Your task to perform on an android device: change notifications settings Image 0: 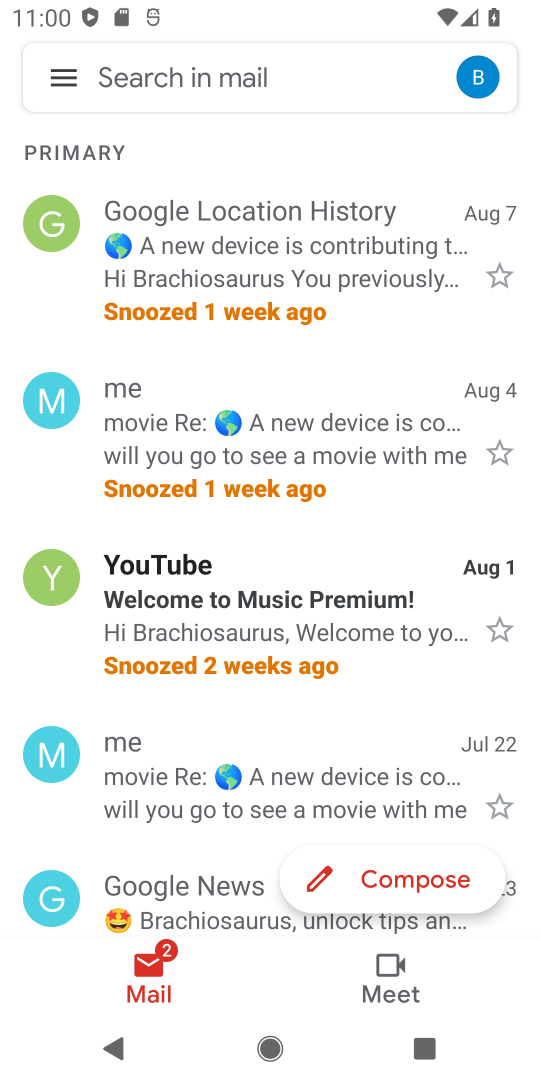
Step 0: click (65, 78)
Your task to perform on an android device: change notifications settings Image 1: 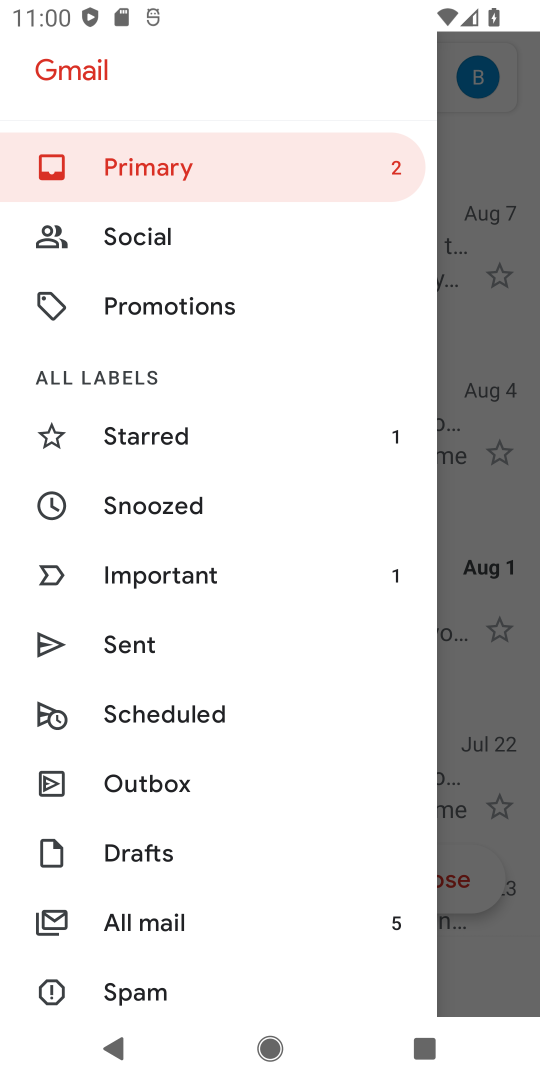
Step 1: drag from (246, 954) to (173, 217)
Your task to perform on an android device: change notifications settings Image 2: 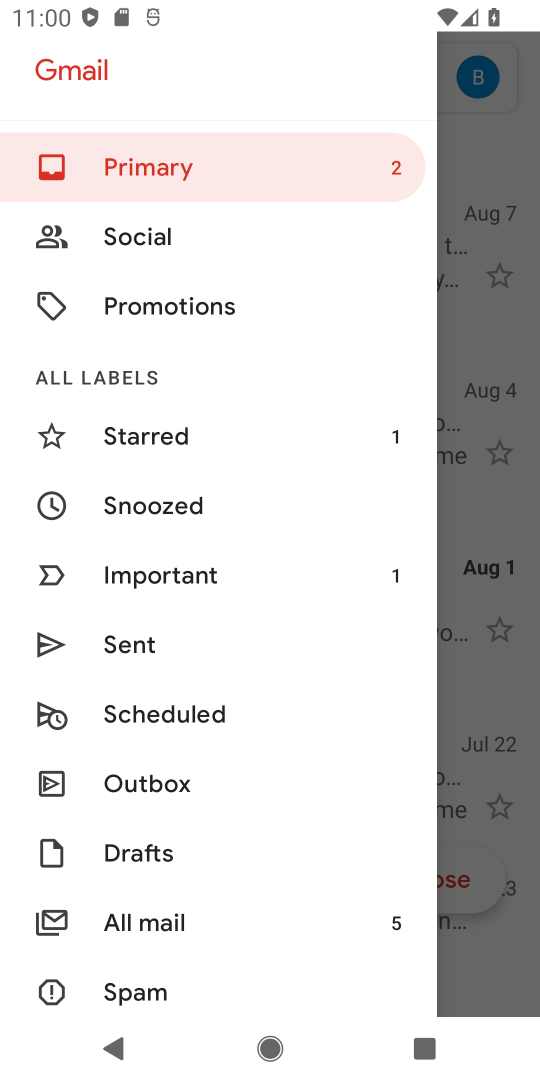
Step 2: drag from (242, 963) to (190, 201)
Your task to perform on an android device: change notifications settings Image 3: 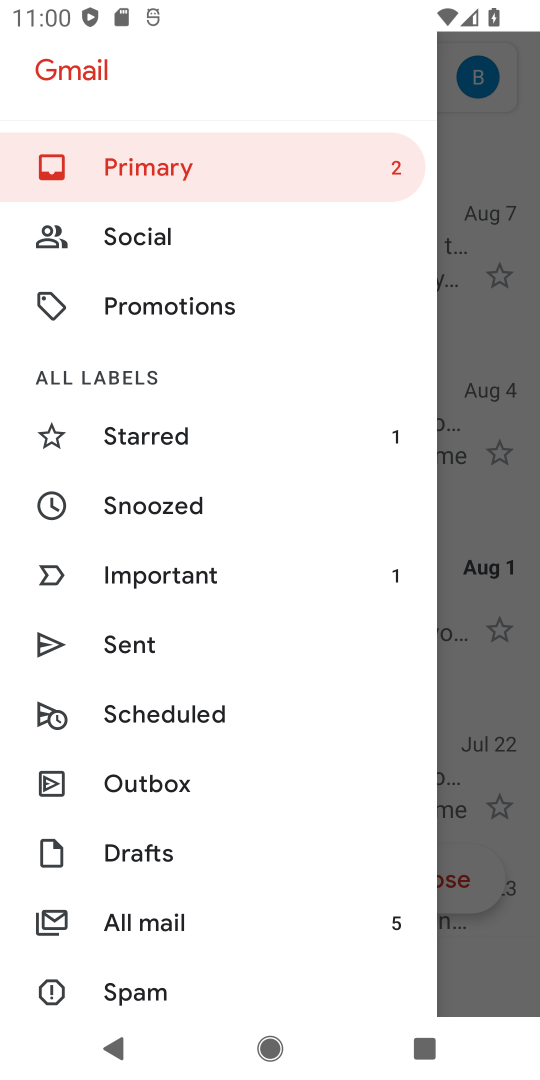
Step 3: drag from (282, 967) to (335, 39)
Your task to perform on an android device: change notifications settings Image 4: 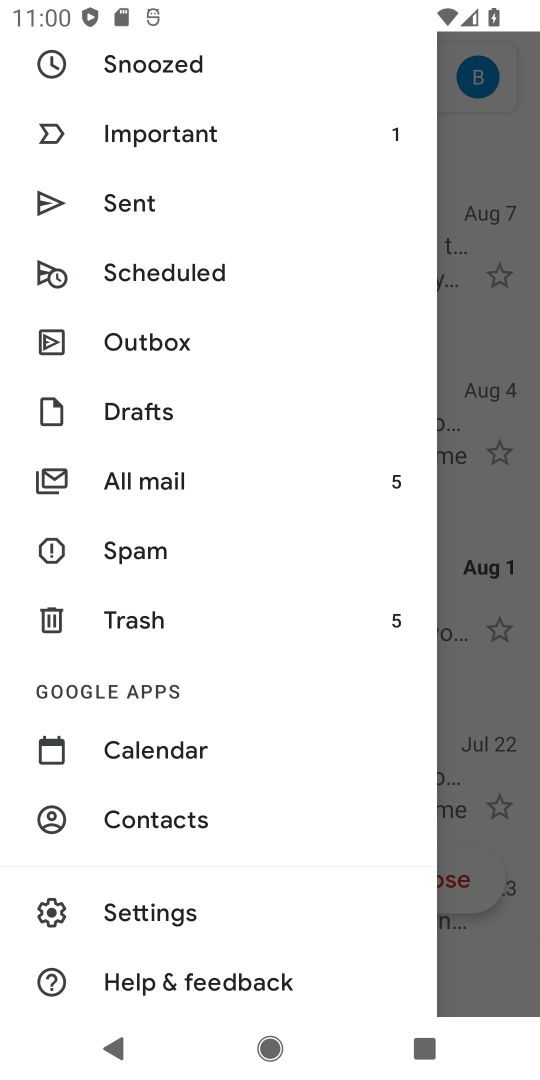
Step 4: click (186, 917)
Your task to perform on an android device: change notifications settings Image 5: 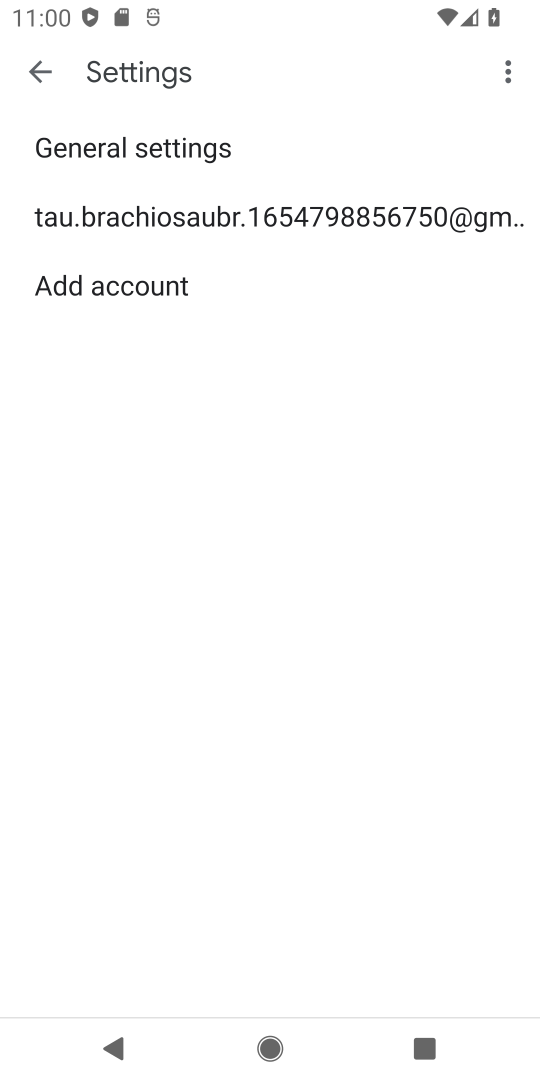
Step 5: click (295, 218)
Your task to perform on an android device: change notifications settings Image 6: 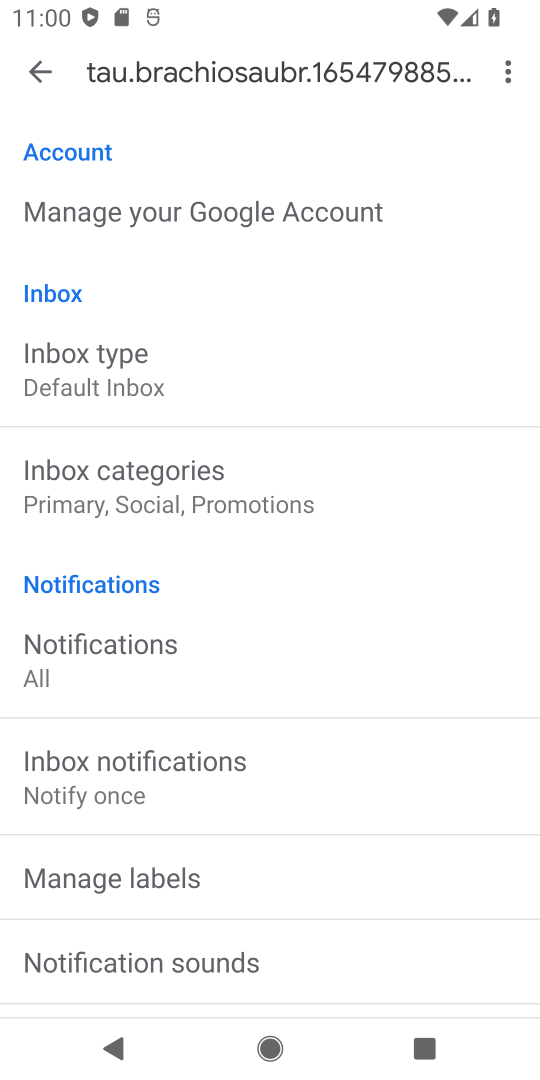
Step 6: click (78, 678)
Your task to perform on an android device: change notifications settings Image 7: 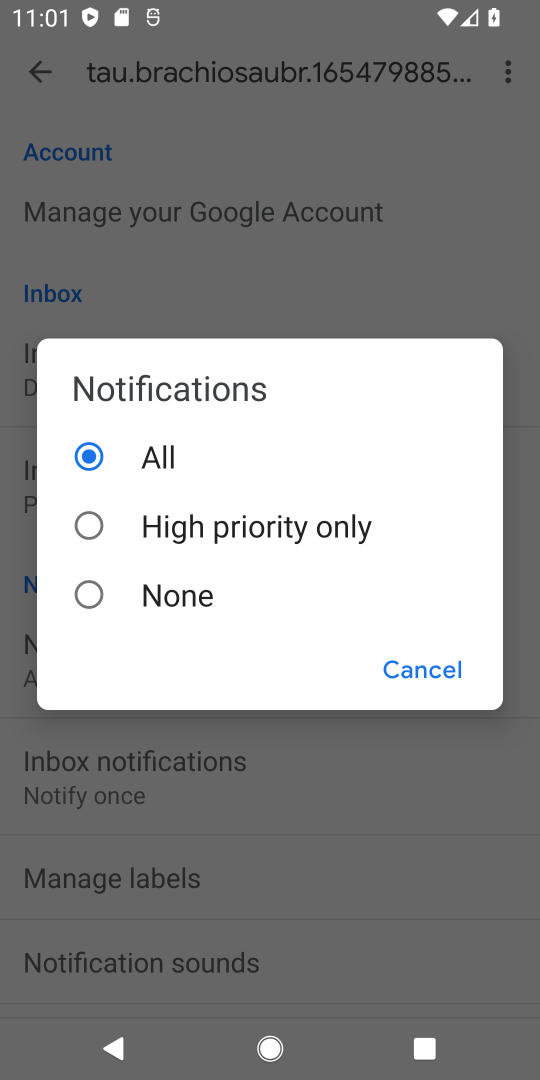
Step 7: click (384, 541)
Your task to perform on an android device: change notifications settings Image 8: 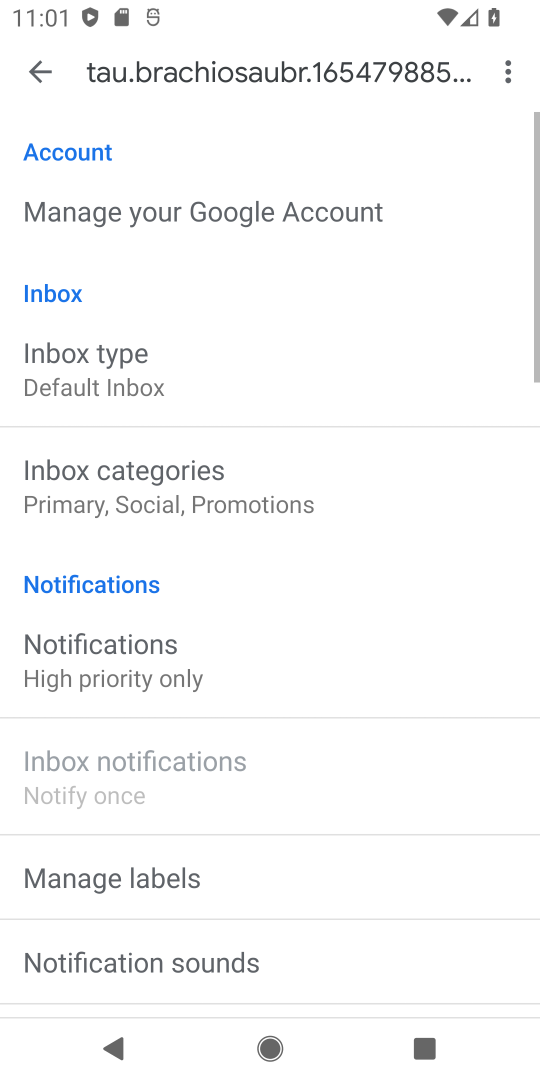
Step 8: task complete